Your task to perform on an android device: Open Amazon Image 0: 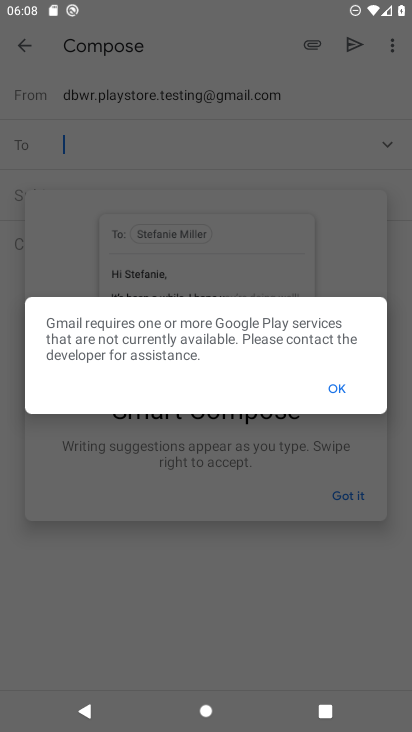
Step 0: press home button
Your task to perform on an android device: Open Amazon Image 1: 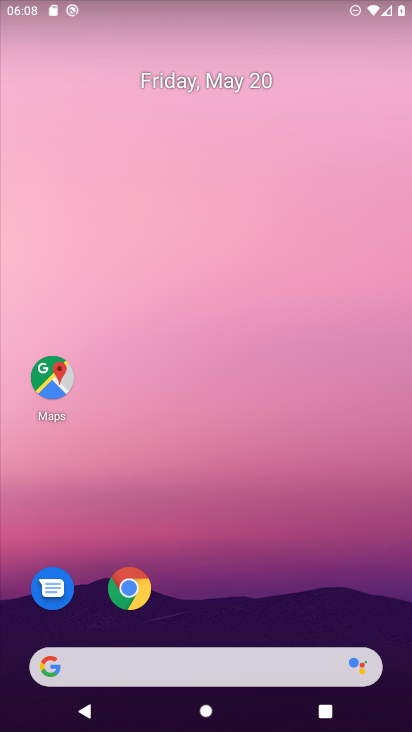
Step 1: click (120, 586)
Your task to perform on an android device: Open Amazon Image 2: 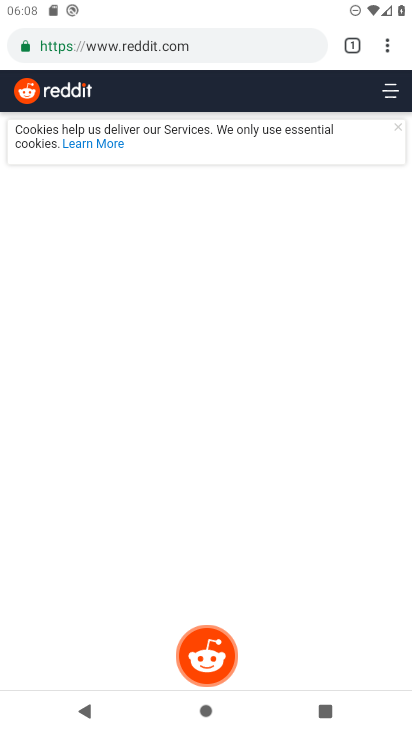
Step 2: click (382, 46)
Your task to perform on an android device: Open Amazon Image 3: 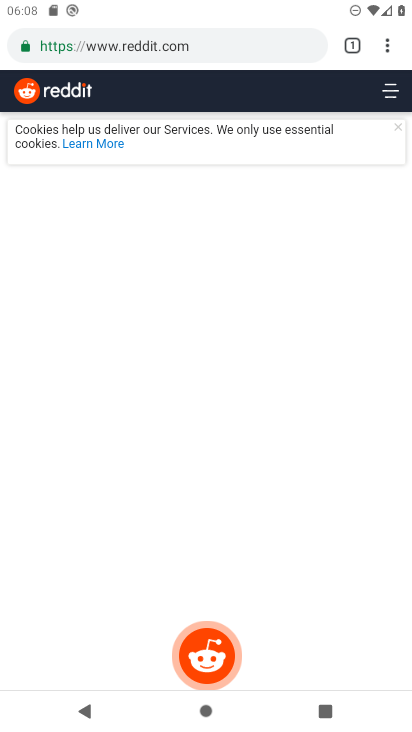
Step 3: click (386, 47)
Your task to perform on an android device: Open Amazon Image 4: 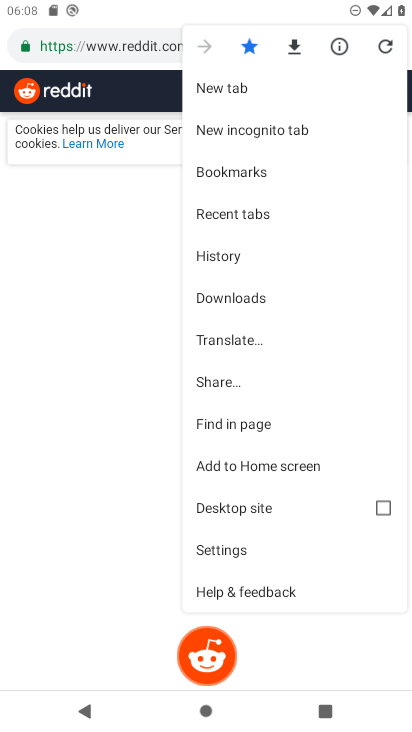
Step 4: click (125, 50)
Your task to perform on an android device: Open Amazon Image 5: 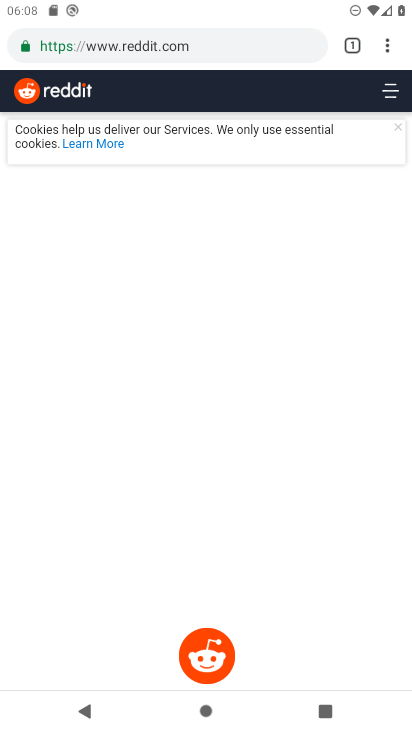
Step 5: click (125, 50)
Your task to perform on an android device: Open Amazon Image 6: 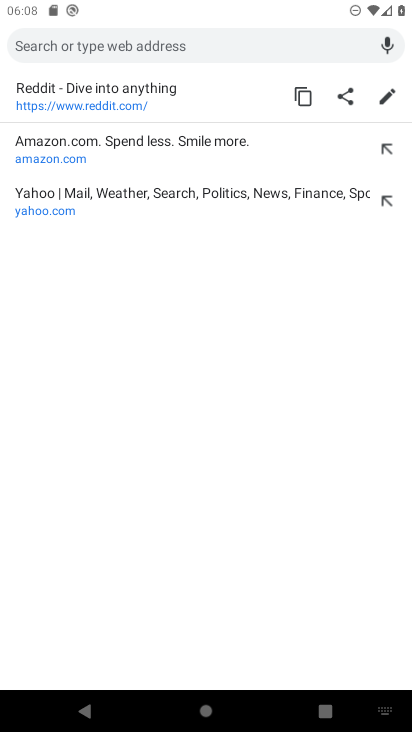
Step 6: click (90, 160)
Your task to perform on an android device: Open Amazon Image 7: 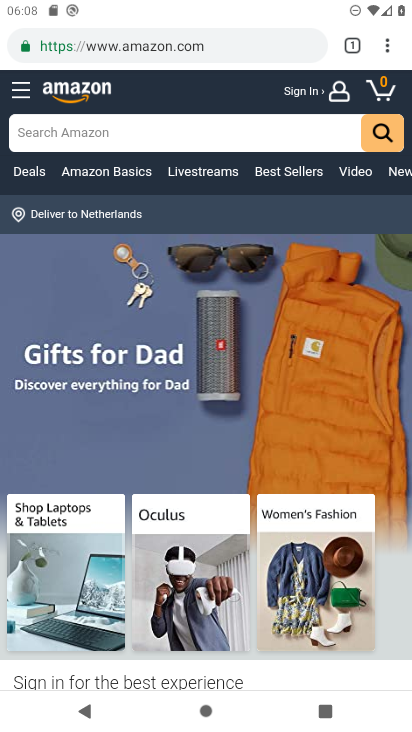
Step 7: task complete